Your task to perform on an android device: move a message to another label in the gmail app Image 0: 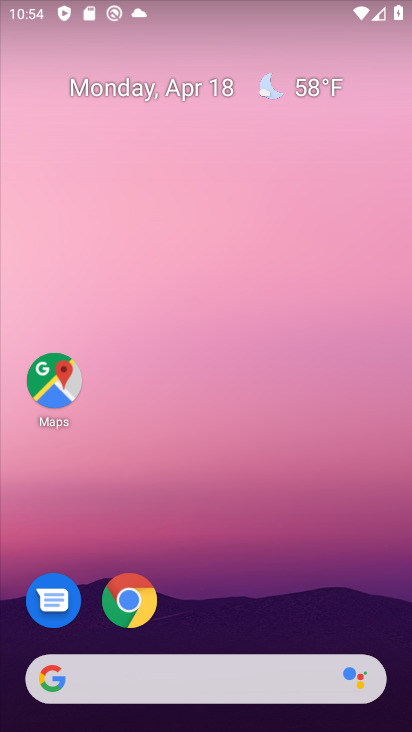
Step 0: drag from (230, 527) to (219, 61)
Your task to perform on an android device: move a message to another label in the gmail app Image 1: 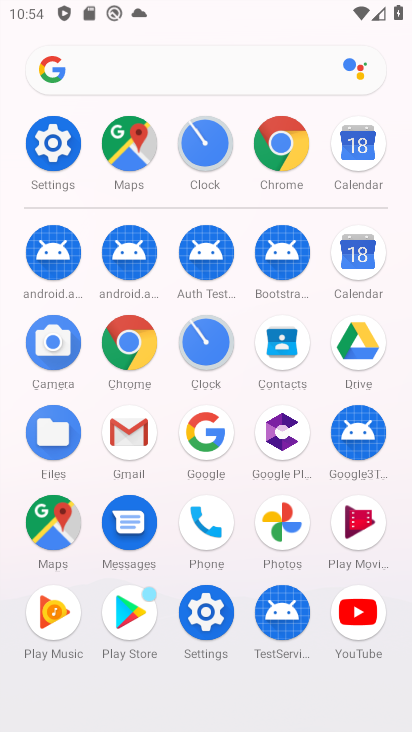
Step 1: click (127, 429)
Your task to perform on an android device: move a message to another label in the gmail app Image 2: 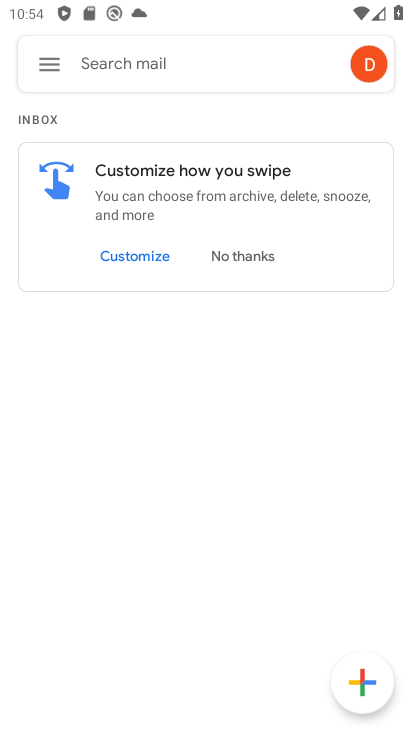
Step 2: click (48, 61)
Your task to perform on an android device: move a message to another label in the gmail app Image 3: 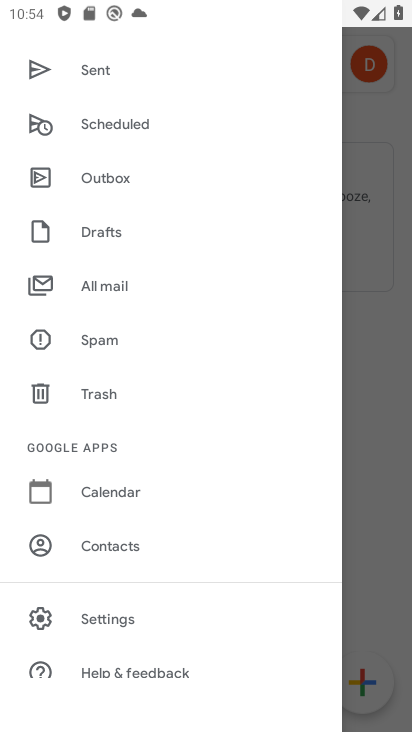
Step 3: click (110, 283)
Your task to perform on an android device: move a message to another label in the gmail app Image 4: 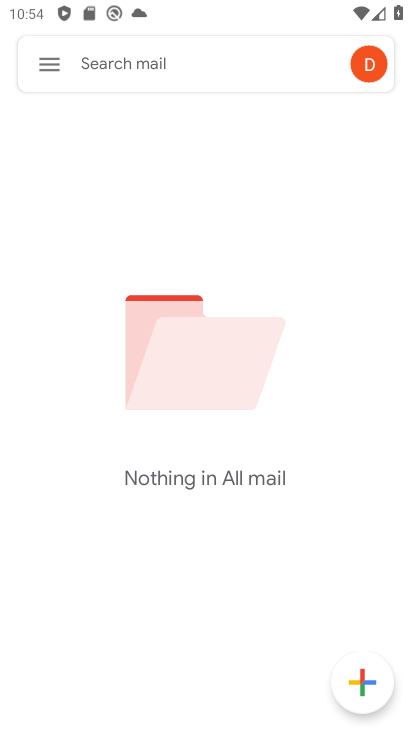
Step 4: click (58, 64)
Your task to perform on an android device: move a message to another label in the gmail app Image 5: 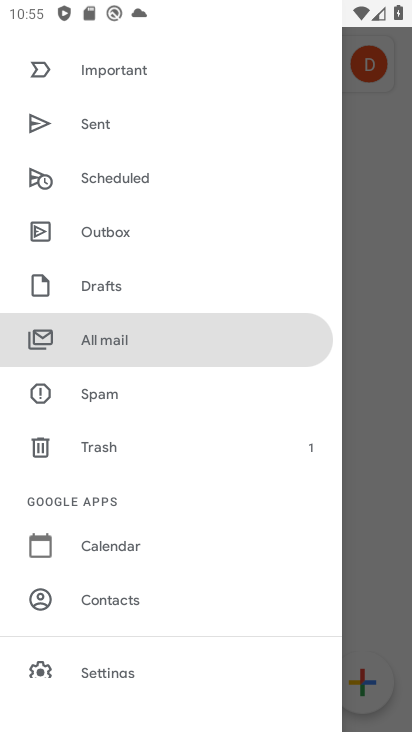
Step 5: click (113, 335)
Your task to perform on an android device: move a message to another label in the gmail app Image 6: 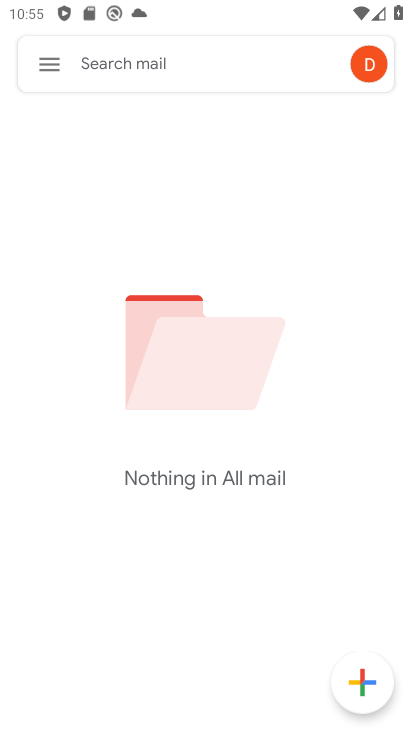
Step 6: task complete